Your task to perform on an android device: What's the weather today? Image 0: 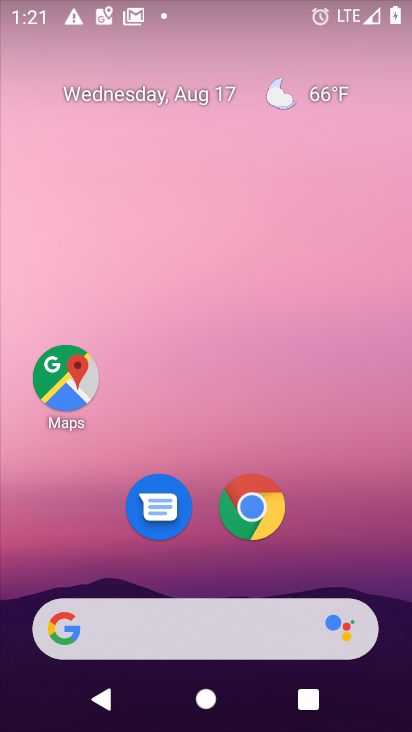
Step 0: click (238, 617)
Your task to perform on an android device: What's the weather today? Image 1: 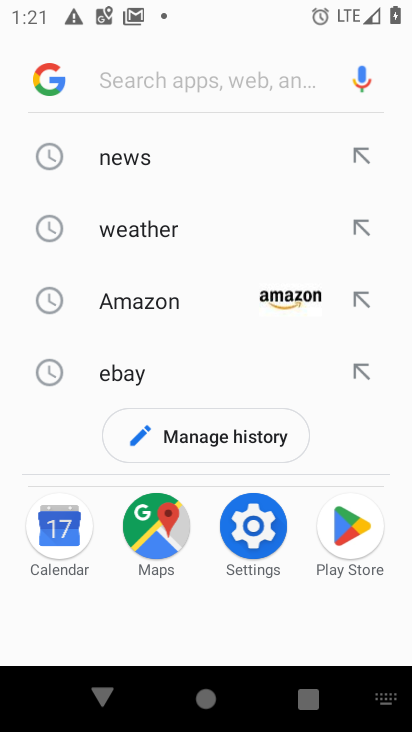
Step 1: click (133, 224)
Your task to perform on an android device: What's the weather today? Image 2: 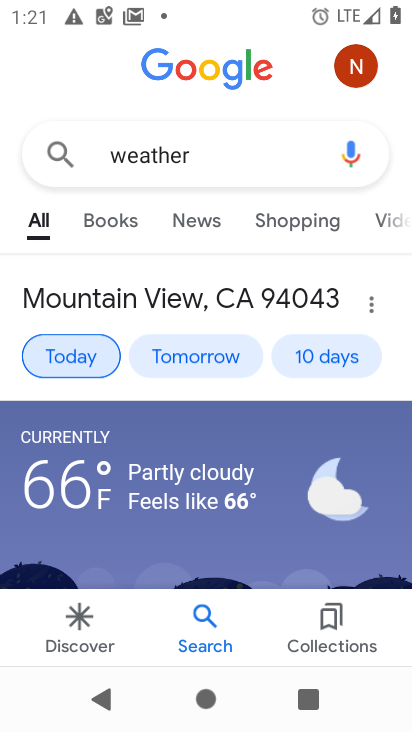
Step 2: task complete